Your task to perform on an android device: Open Yahoo.com Image 0: 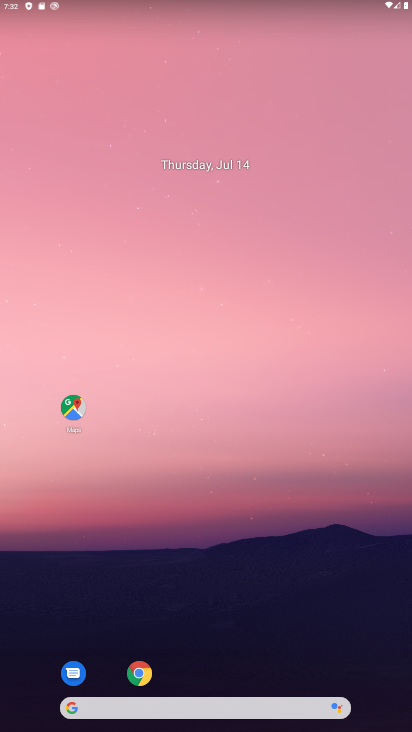
Step 0: click (146, 671)
Your task to perform on an android device: Open Yahoo.com Image 1: 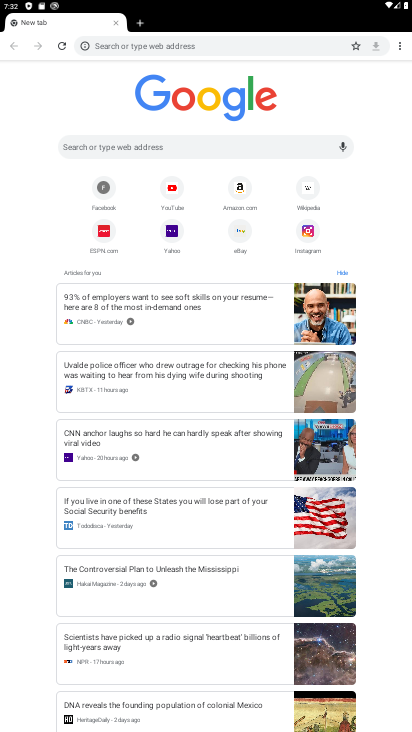
Step 1: click (173, 237)
Your task to perform on an android device: Open Yahoo.com Image 2: 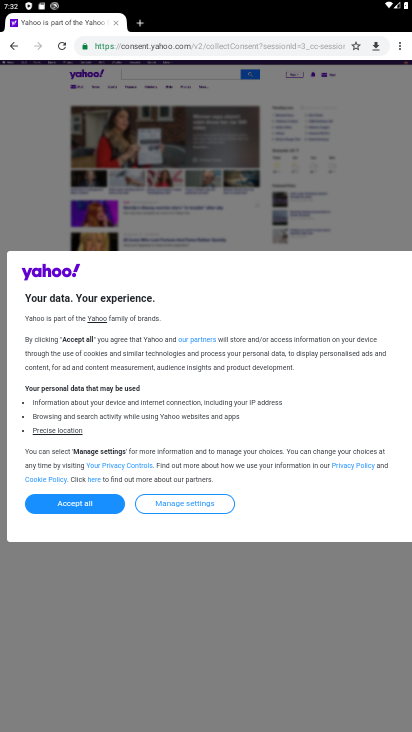
Step 2: task complete